Your task to perform on an android device: Open the web browser Image 0: 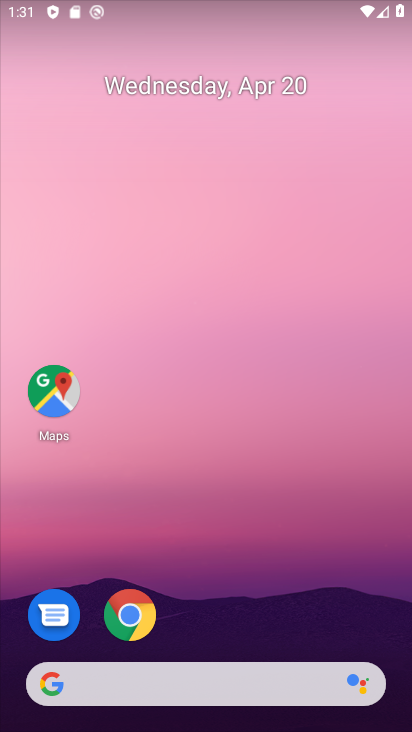
Step 0: drag from (264, 622) to (232, 1)
Your task to perform on an android device: Open the web browser Image 1: 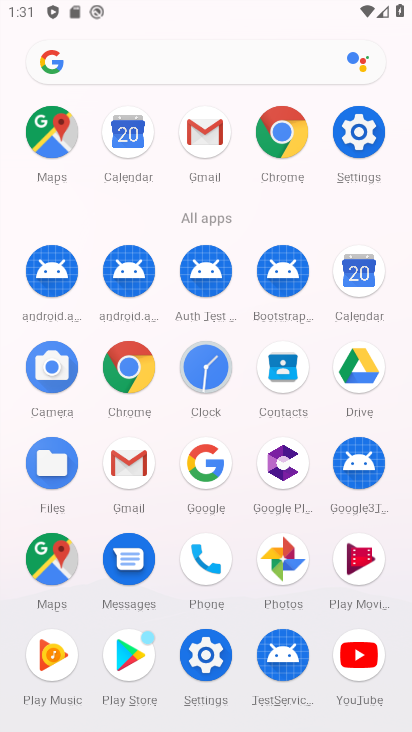
Step 1: click (118, 368)
Your task to perform on an android device: Open the web browser Image 2: 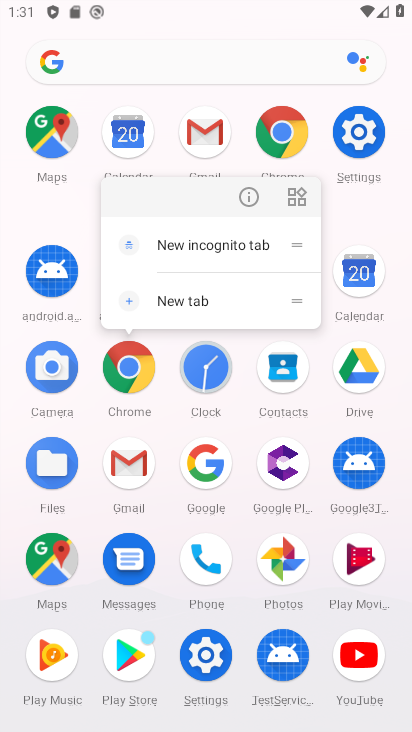
Step 2: click (118, 368)
Your task to perform on an android device: Open the web browser Image 3: 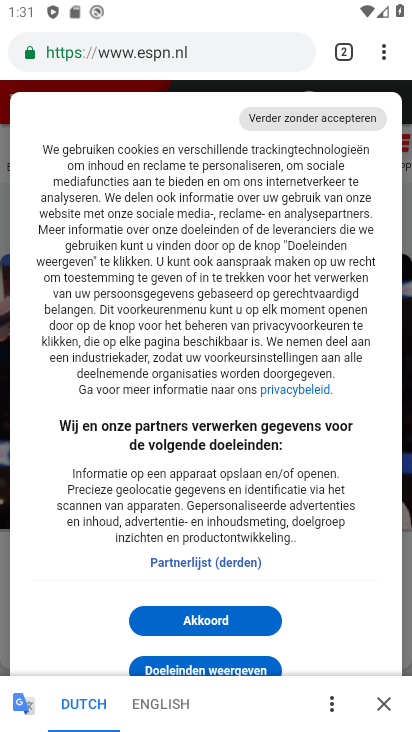
Step 3: task complete